Your task to perform on an android device: open wifi settings Image 0: 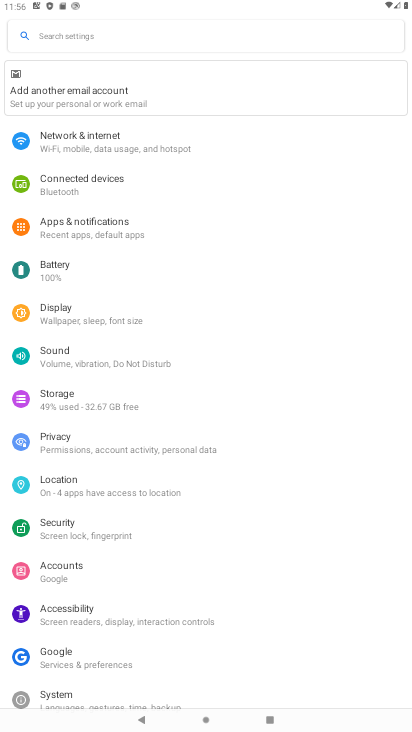
Step 0: press home button
Your task to perform on an android device: open wifi settings Image 1: 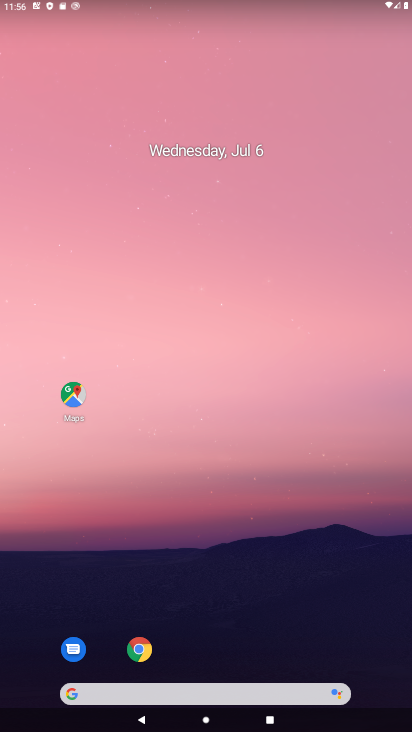
Step 1: drag from (56, 672) to (233, 233)
Your task to perform on an android device: open wifi settings Image 2: 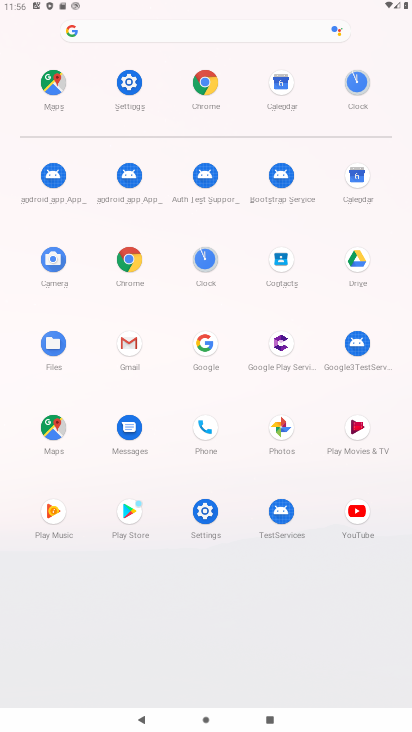
Step 2: click (206, 508)
Your task to perform on an android device: open wifi settings Image 3: 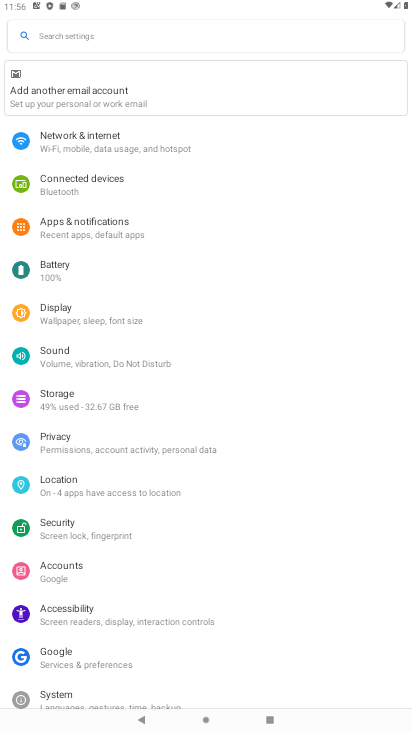
Step 3: click (107, 139)
Your task to perform on an android device: open wifi settings Image 4: 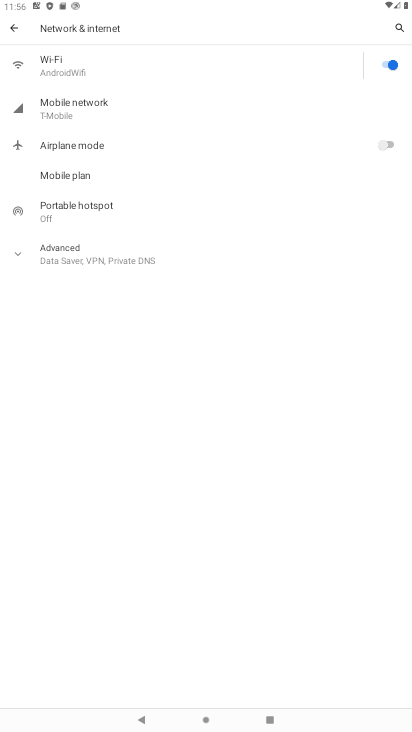
Step 4: click (54, 69)
Your task to perform on an android device: open wifi settings Image 5: 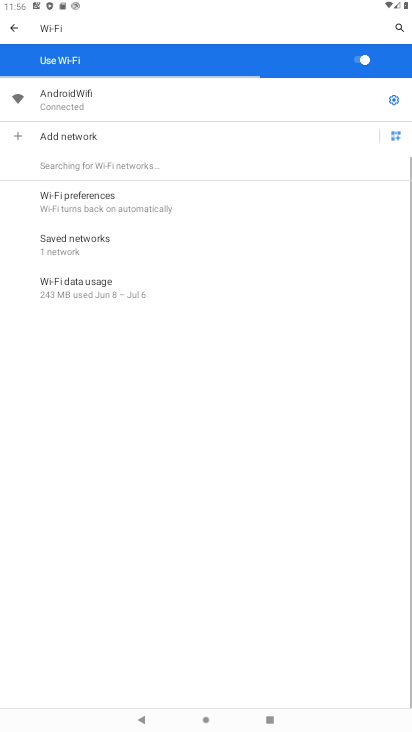
Step 5: task complete